Your task to perform on an android device: uninstall "Paramount+ | Peak Streaming" Image 0: 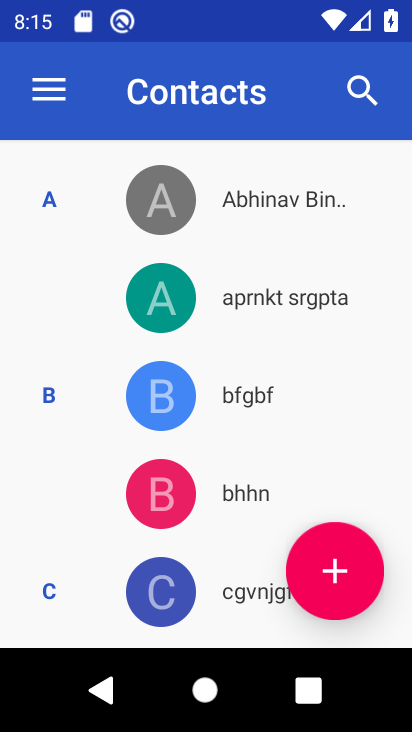
Step 0: press home button
Your task to perform on an android device: uninstall "Paramount+ | Peak Streaming" Image 1: 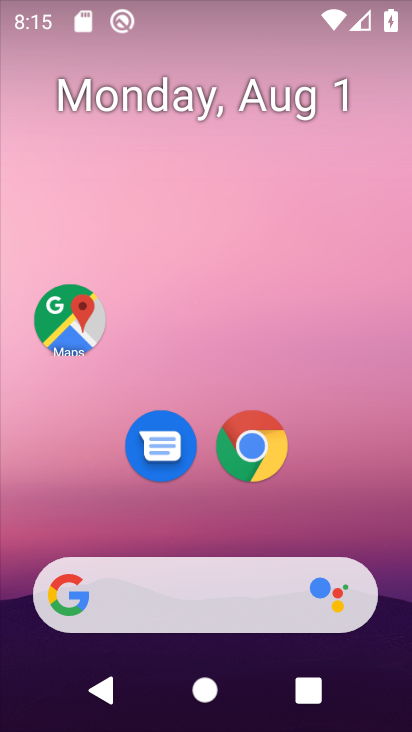
Step 1: drag from (203, 420) to (203, 5)
Your task to perform on an android device: uninstall "Paramount+ | Peak Streaming" Image 2: 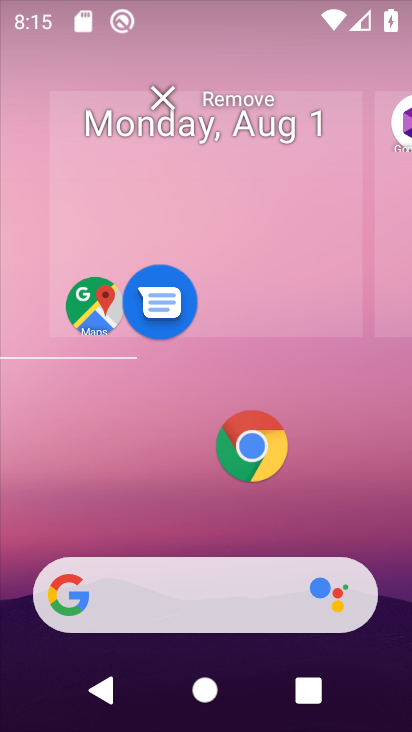
Step 2: click (216, 502)
Your task to perform on an android device: uninstall "Paramount+ | Peak Streaming" Image 3: 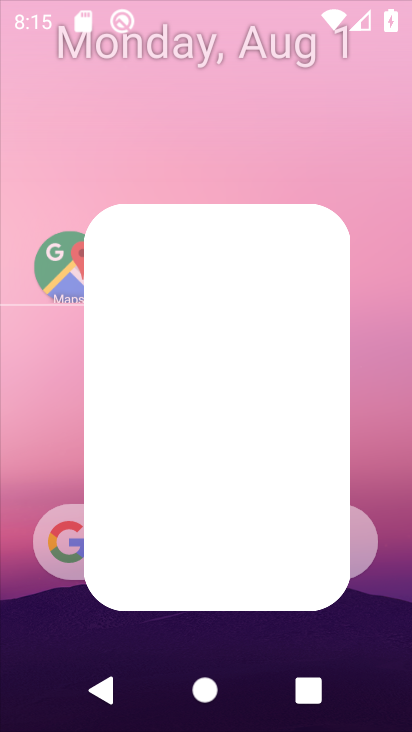
Step 3: drag from (202, 525) to (204, 144)
Your task to perform on an android device: uninstall "Paramount+ | Peak Streaming" Image 4: 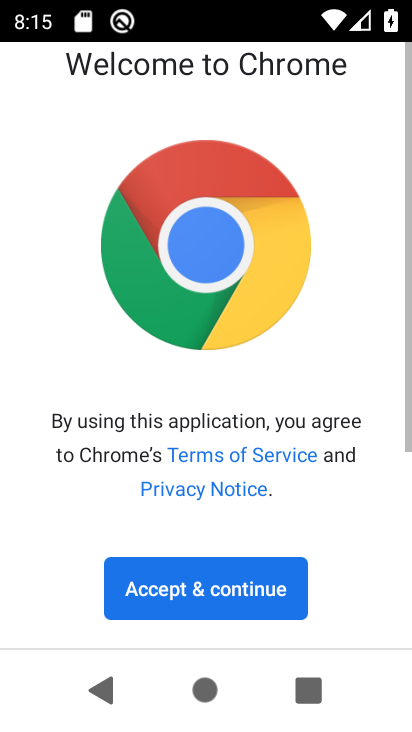
Step 4: press home button
Your task to perform on an android device: uninstall "Paramount+ | Peak Streaming" Image 5: 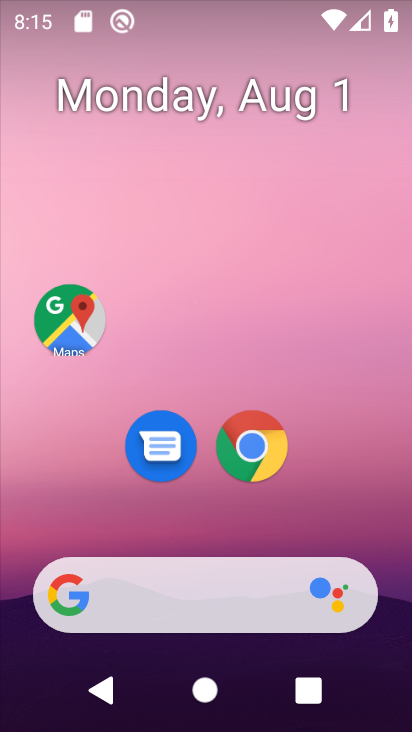
Step 5: drag from (194, 427) to (194, 65)
Your task to perform on an android device: uninstall "Paramount+ | Peak Streaming" Image 6: 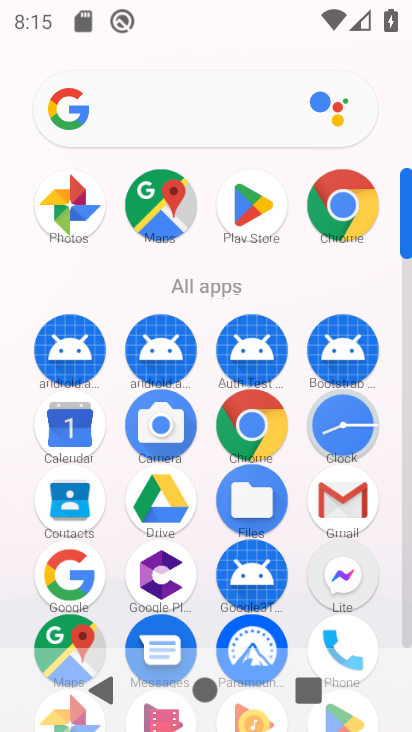
Step 6: click (240, 189)
Your task to perform on an android device: uninstall "Paramount+ | Peak Streaming" Image 7: 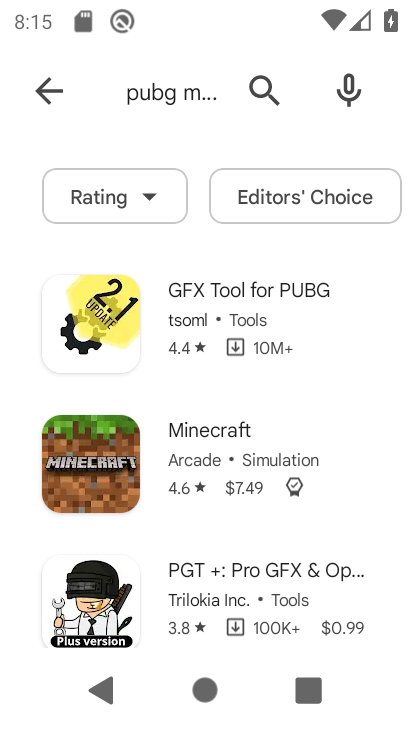
Step 7: click (273, 76)
Your task to perform on an android device: uninstall "Paramount+ | Peak Streaming" Image 8: 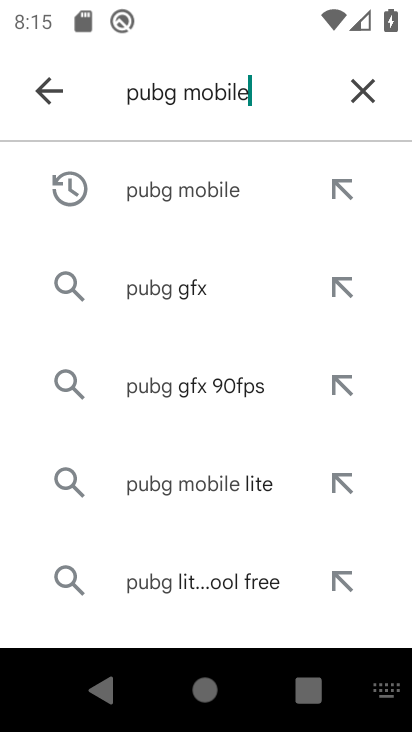
Step 8: click (357, 84)
Your task to perform on an android device: uninstall "Paramount+ | Peak Streaming" Image 9: 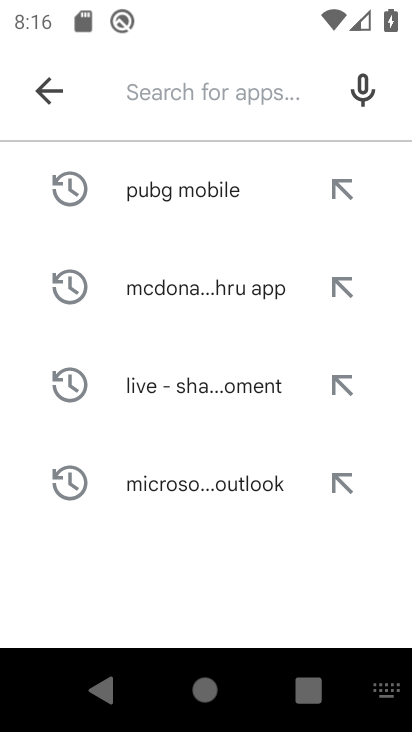
Step 9: type "Paramount+ | Peak Streaming"
Your task to perform on an android device: uninstall "Paramount+ | Peak Streaming" Image 10: 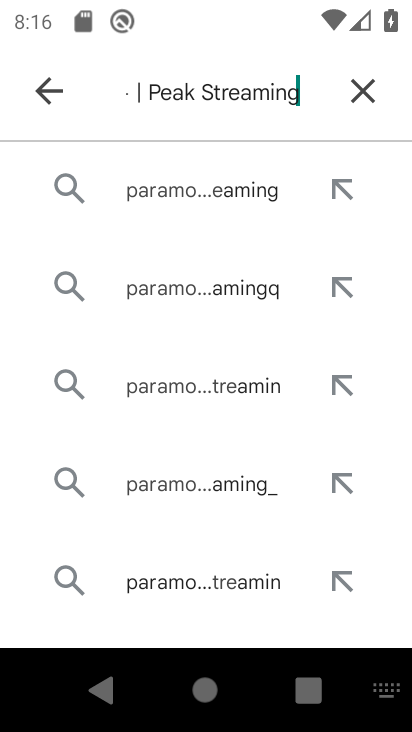
Step 10: type ""
Your task to perform on an android device: uninstall "Paramount+ | Peak Streaming" Image 11: 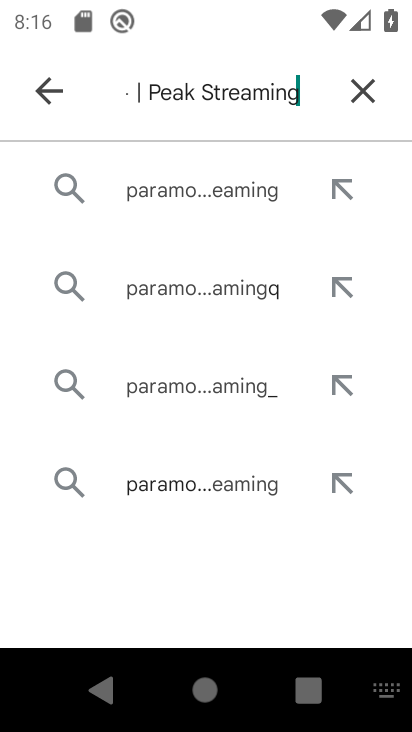
Step 11: click (198, 182)
Your task to perform on an android device: uninstall "Paramount+ | Peak Streaming" Image 12: 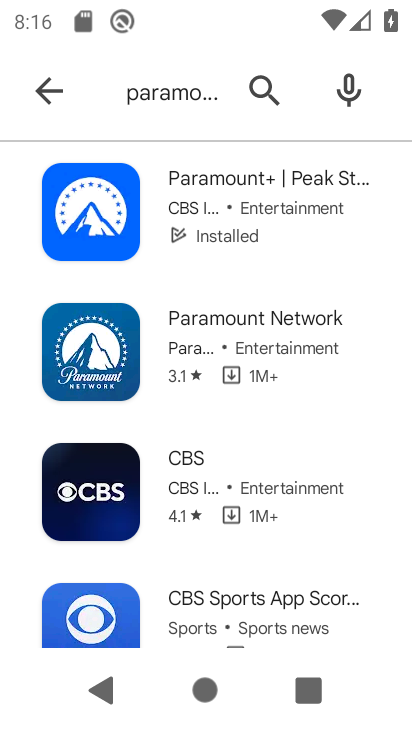
Step 12: click (275, 207)
Your task to perform on an android device: uninstall "Paramount+ | Peak Streaming" Image 13: 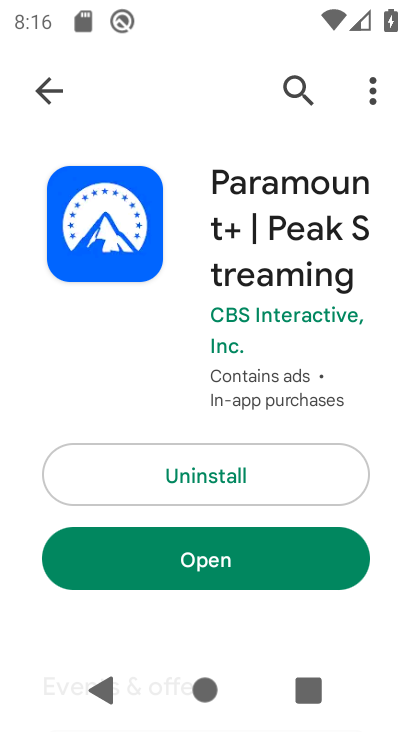
Step 13: click (197, 488)
Your task to perform on an android device: uninstall "Paramount+ | Peak Streaming" Image 14: 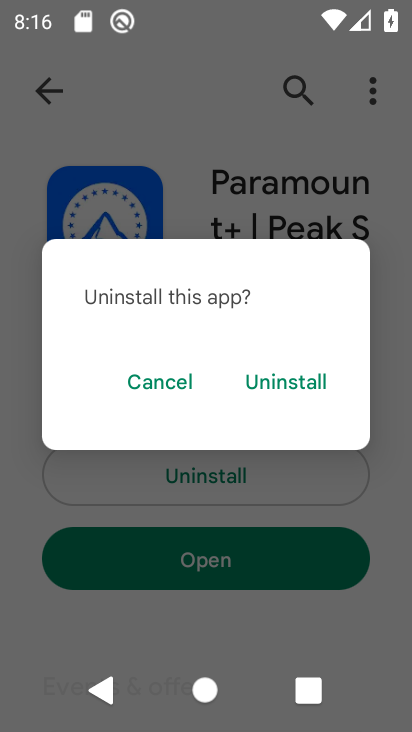
Step 14: click (281, 388)
Your task to perform on an android device: uninstall "Paramount+ | Peak Streaming" Image 15: 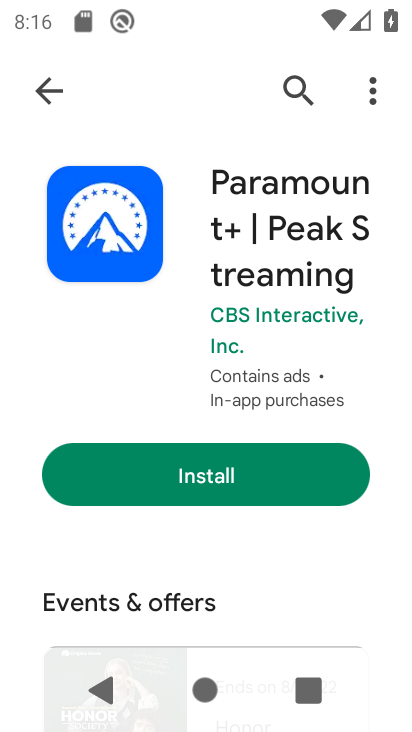
Step 15: task complete